Your task to perform on an android device: Empty the shopping cart on ebay.com. Search for "razer blade" on ebay.com, select the first entry, add it to the cart, then select checkout. Image 0: 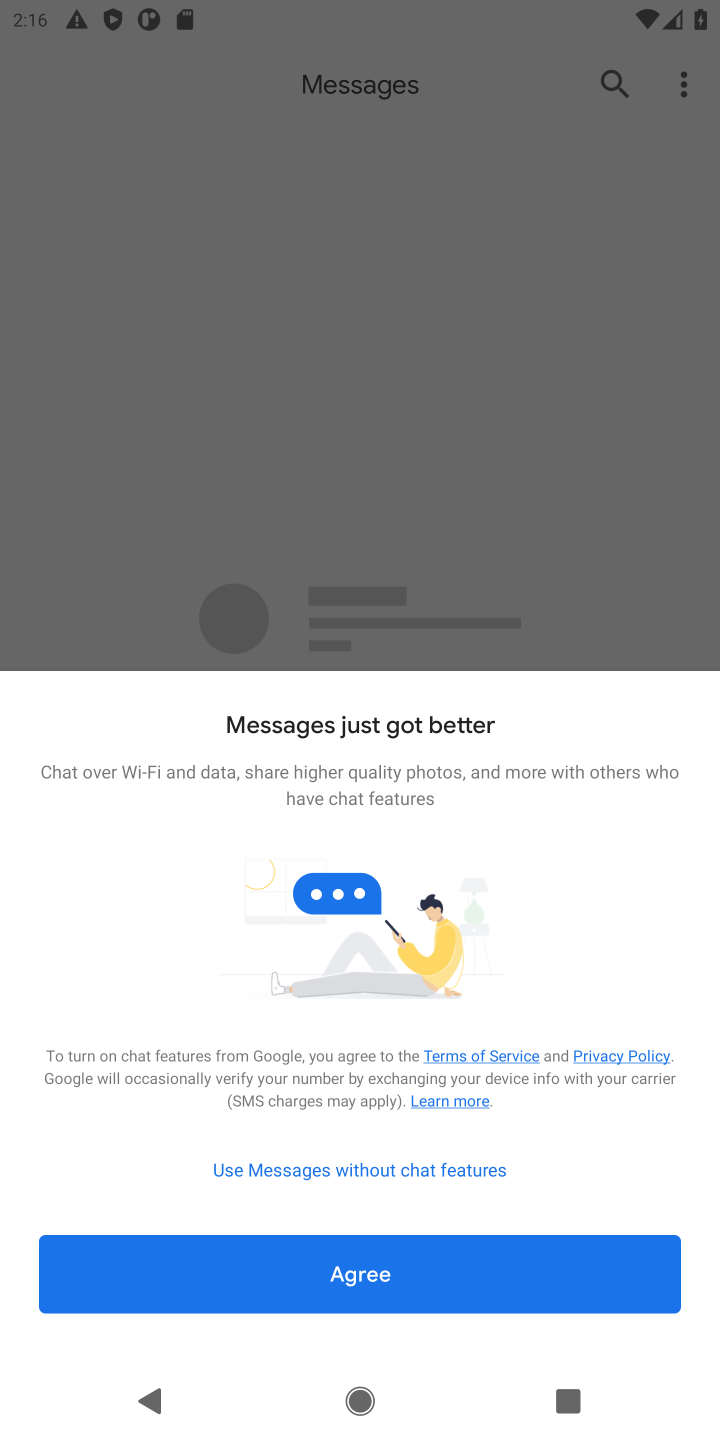
Step 0: press home button
Your task to perform on an android device: Empty the shopping cart on ebay.com. Search for "razer blade" on ebay.com, select the first entry, add it to the cart, then select checkout. Image 1: 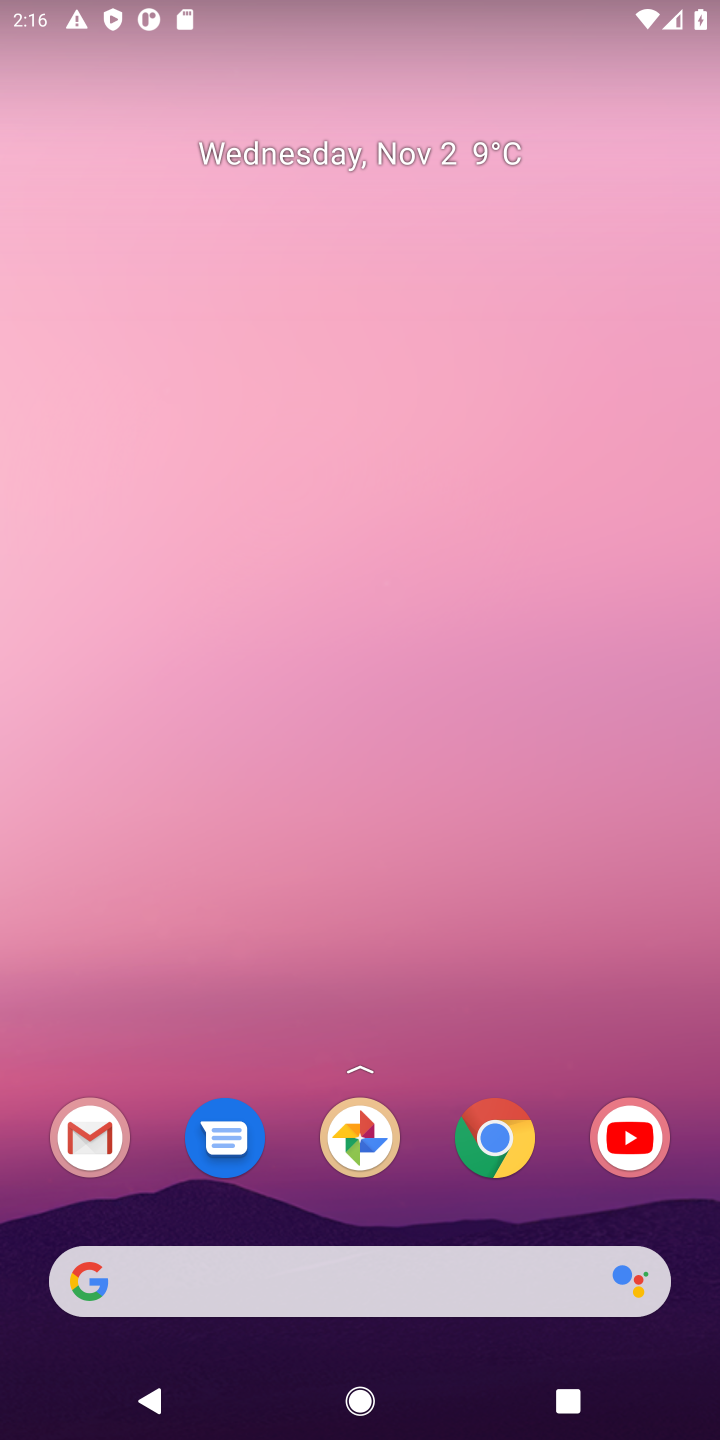
Step 1: click (474, 1106)
Your task to perform on an android device: Empty the shopping cart on ebay.com. Search for "razer blade" on ebay.com, select the first entry, add it to the cart, then select checkout. Image 2: 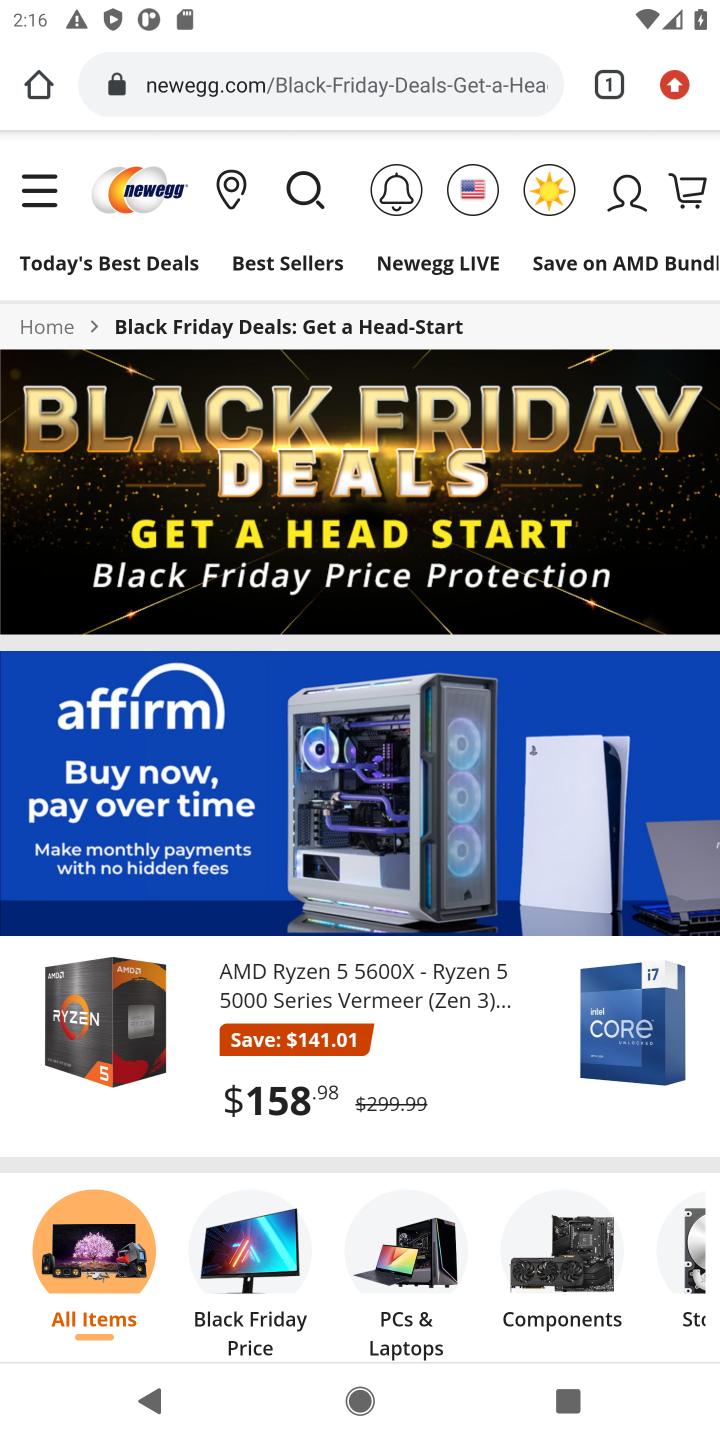
Step 2: click (239, 82)
Your task to perform on an android device: Empty the shopping cart on ebay.com. Search for "razer blade" on ebay.com, select the first entry, add it to the cart, then select checkout. Image 3: 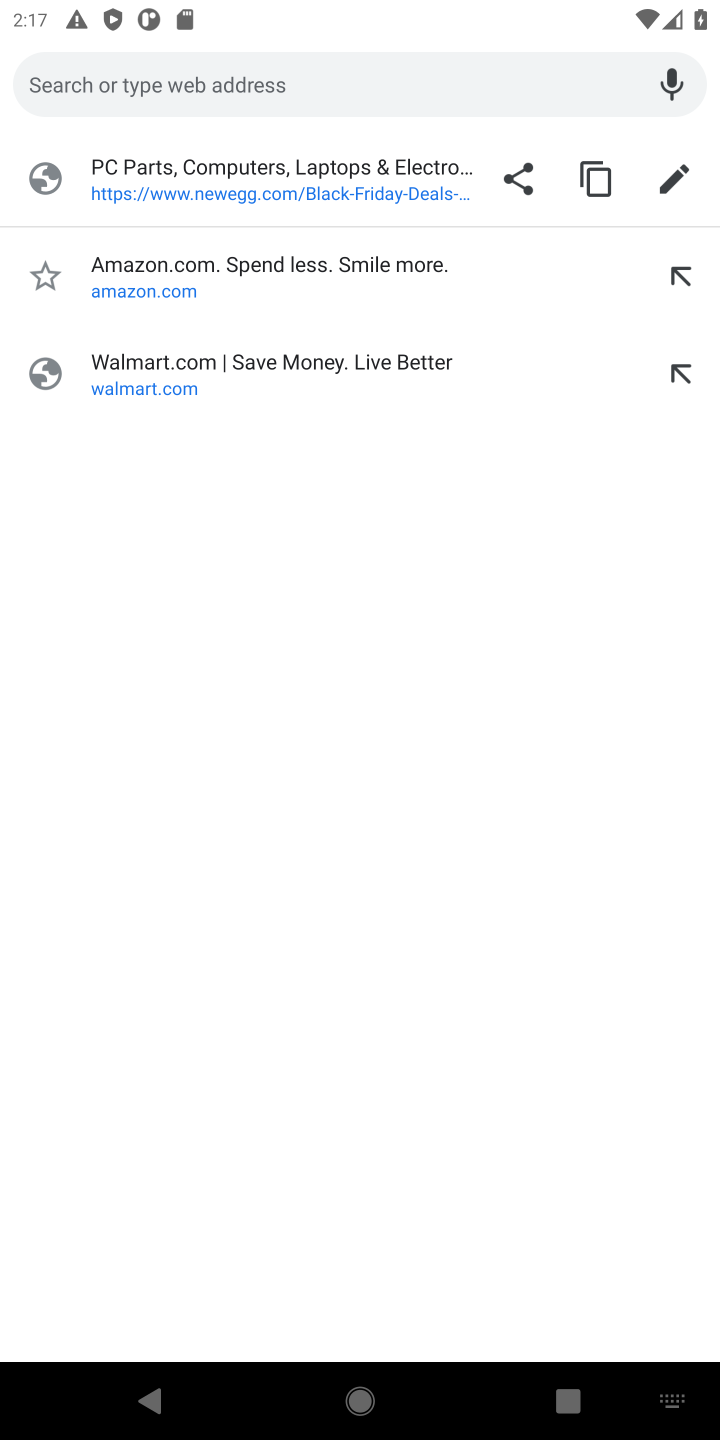
Step 3: type "ebay"
Your task to perform on an android device: Empty the shopping cart on ebay.com. Search for "razer blade" on ebay.com, select the first entry, add it to the cart, then select checkout. Image 4: 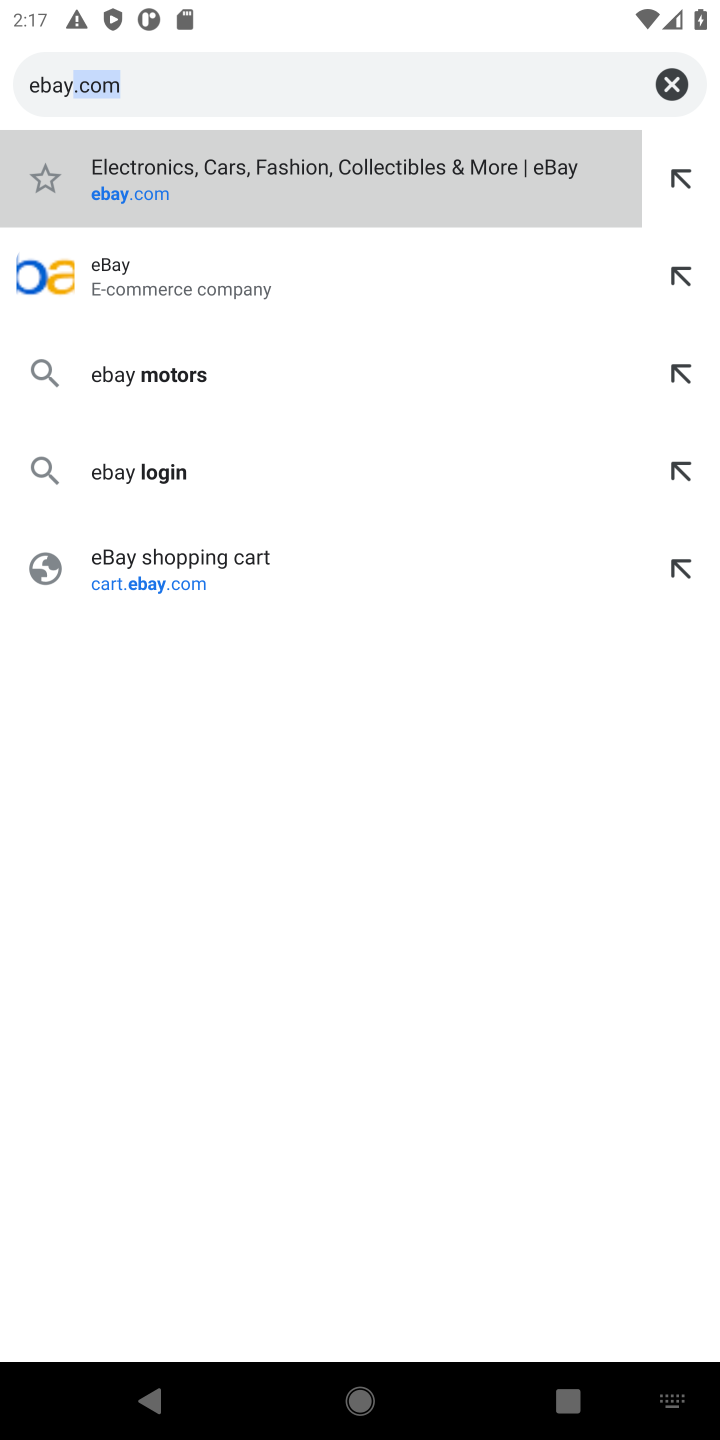
Step 4: click (154, 302)
Your task to perform on an android device: Empty the shopping cart on ebay.com. Search for "razer blade" on ebay.com, select the first entry, add it to the cart, then select checkout. Image 5: 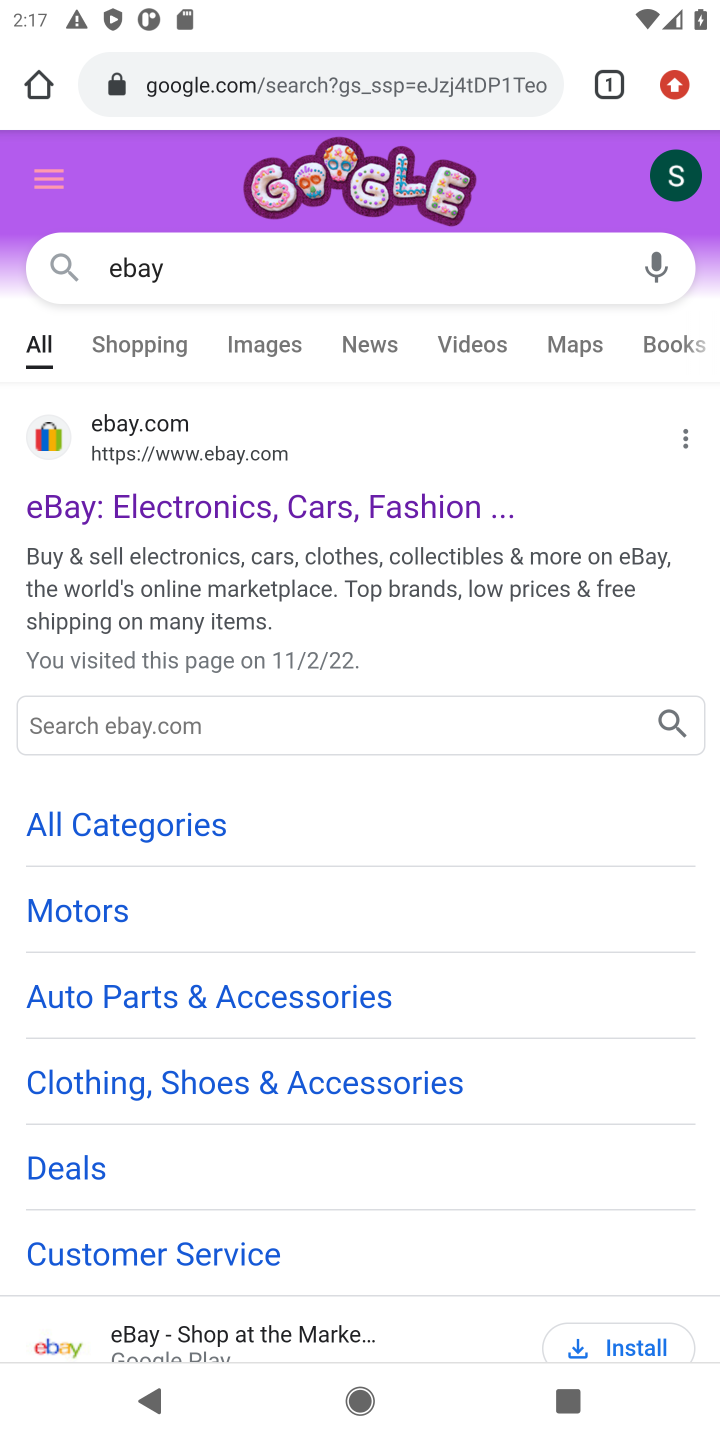
Step 5: click (173, 484)
Your task to perform on an android device: Empty the shopping cart on ebay.com. Search for "razer blade" on ebay.com, select the first entry, add it to the cart, then select checkout. Image 6: 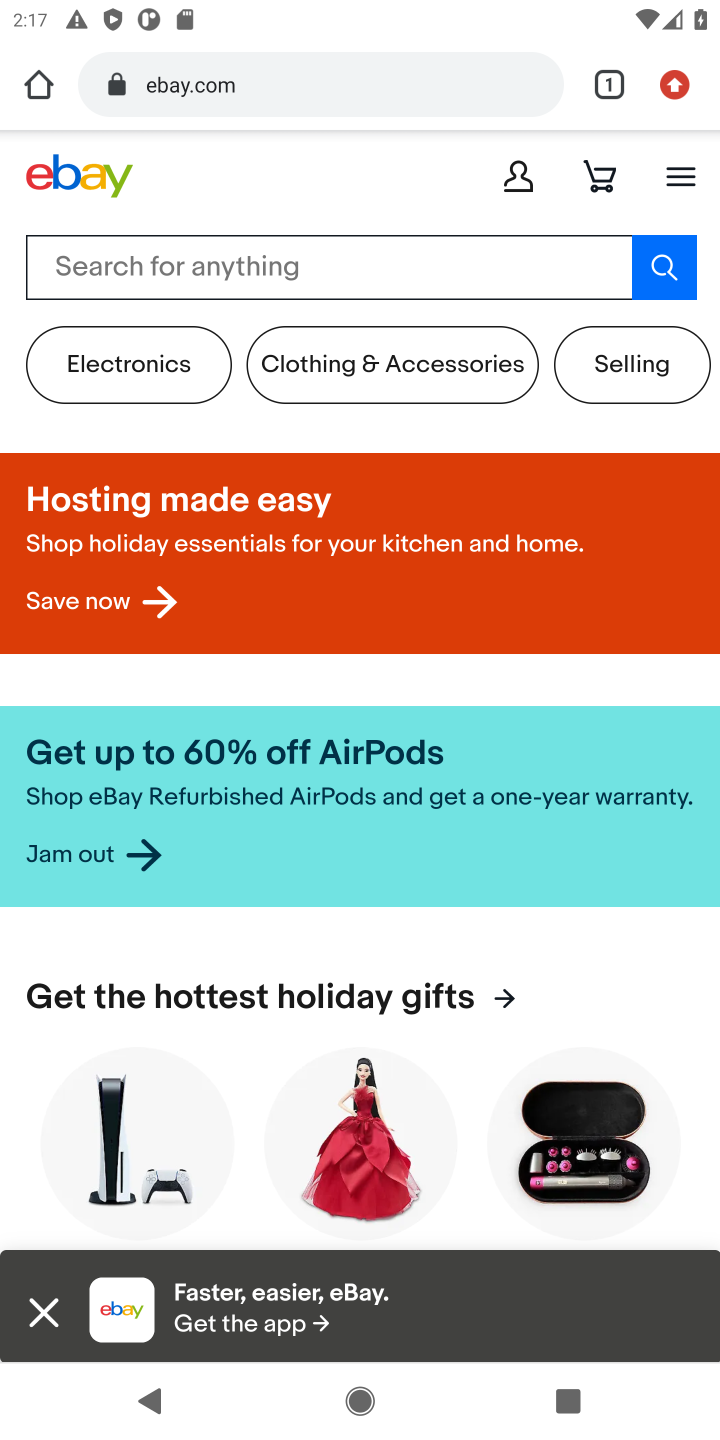
Step 6: click (599, 180)
Your task to perform on an android device: Empty the shopping cart on ebay.com. Search for "razer blade" on ebay.com, select the first entry, add it to the cart, then select checkout. Image 7: 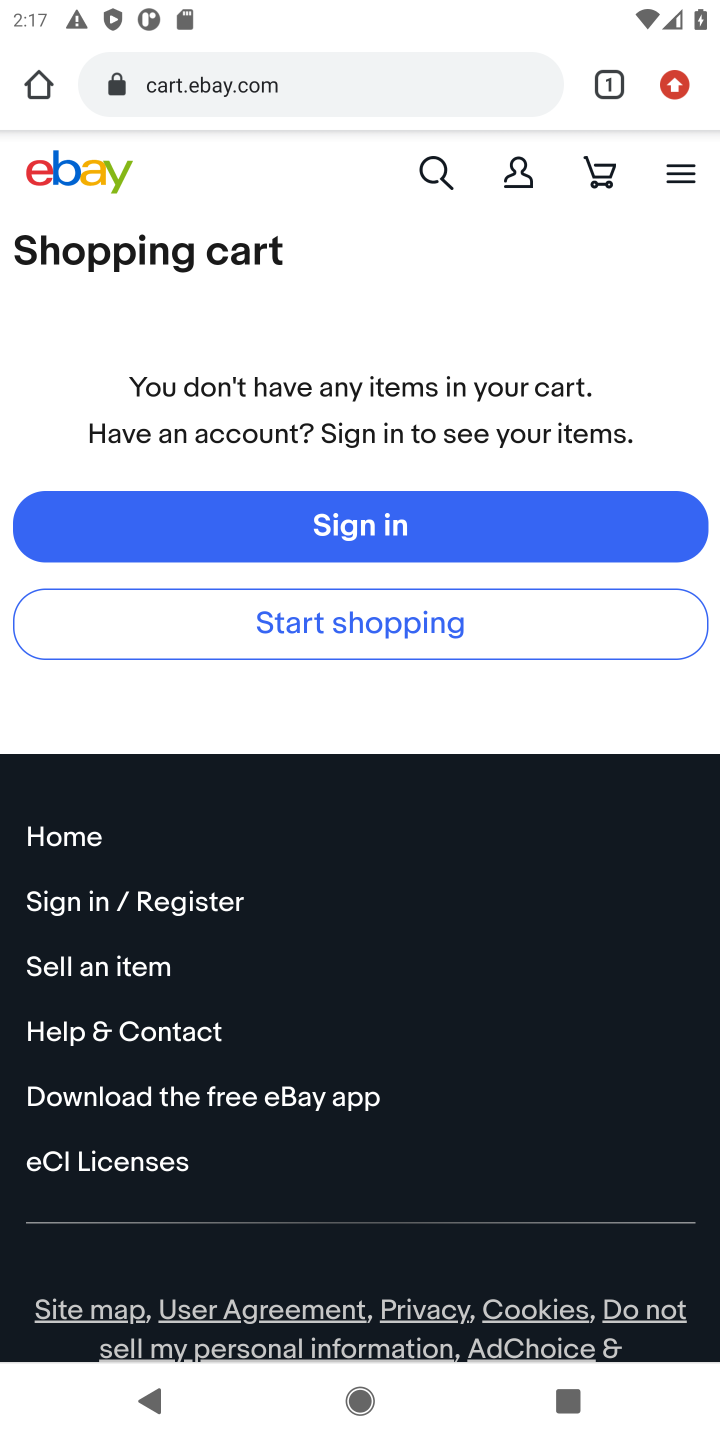
Step 7: click (450, 166)
Your task to perform on an android device: Empty the shopping cart on ebay.com. Search for "razer blade" on ebay.com, select the first entry, add it to the cart, then select checkout. Image 8: 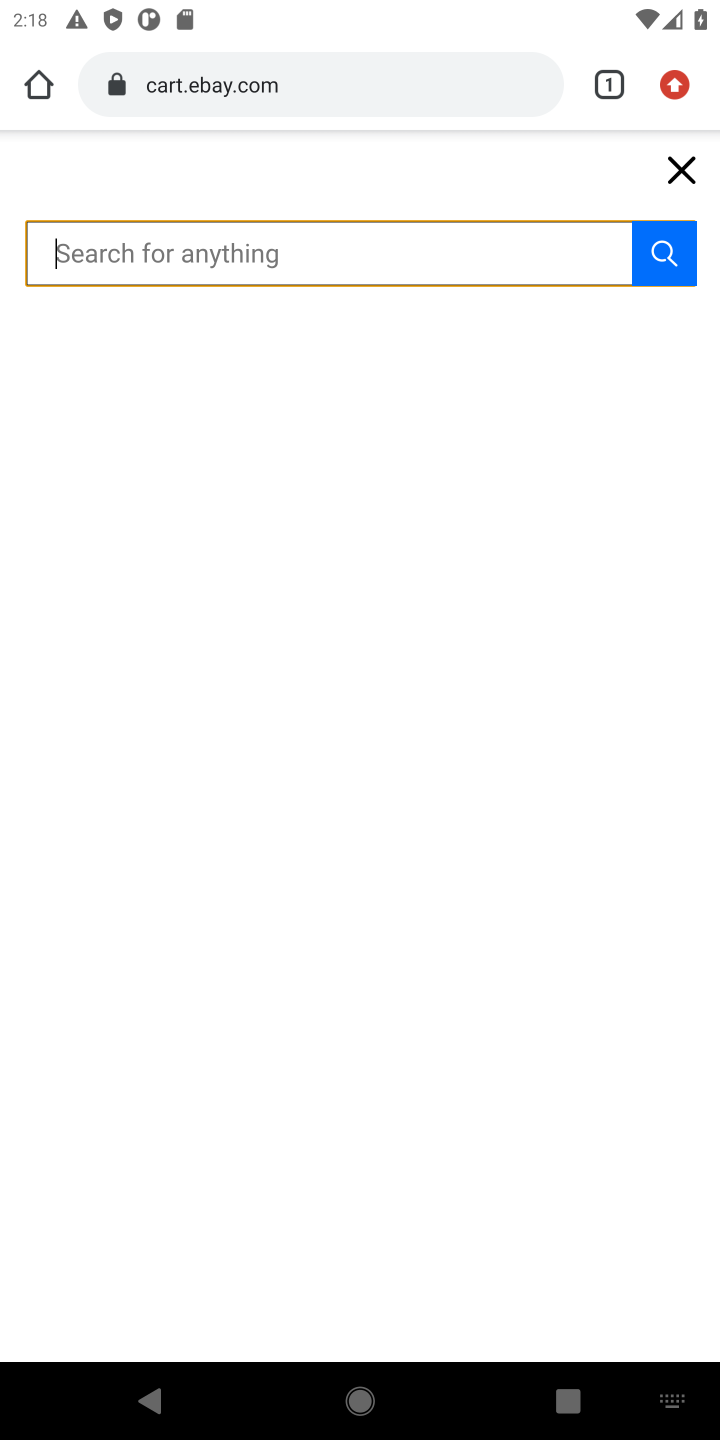
Step 8: type "azer blade"
Your task to perform on an android device: Empty the shopping cart on ebay.com. Search for "razer blade" on ebay.com, select the first entry, add it to the cart, then select checkout. Image 9: 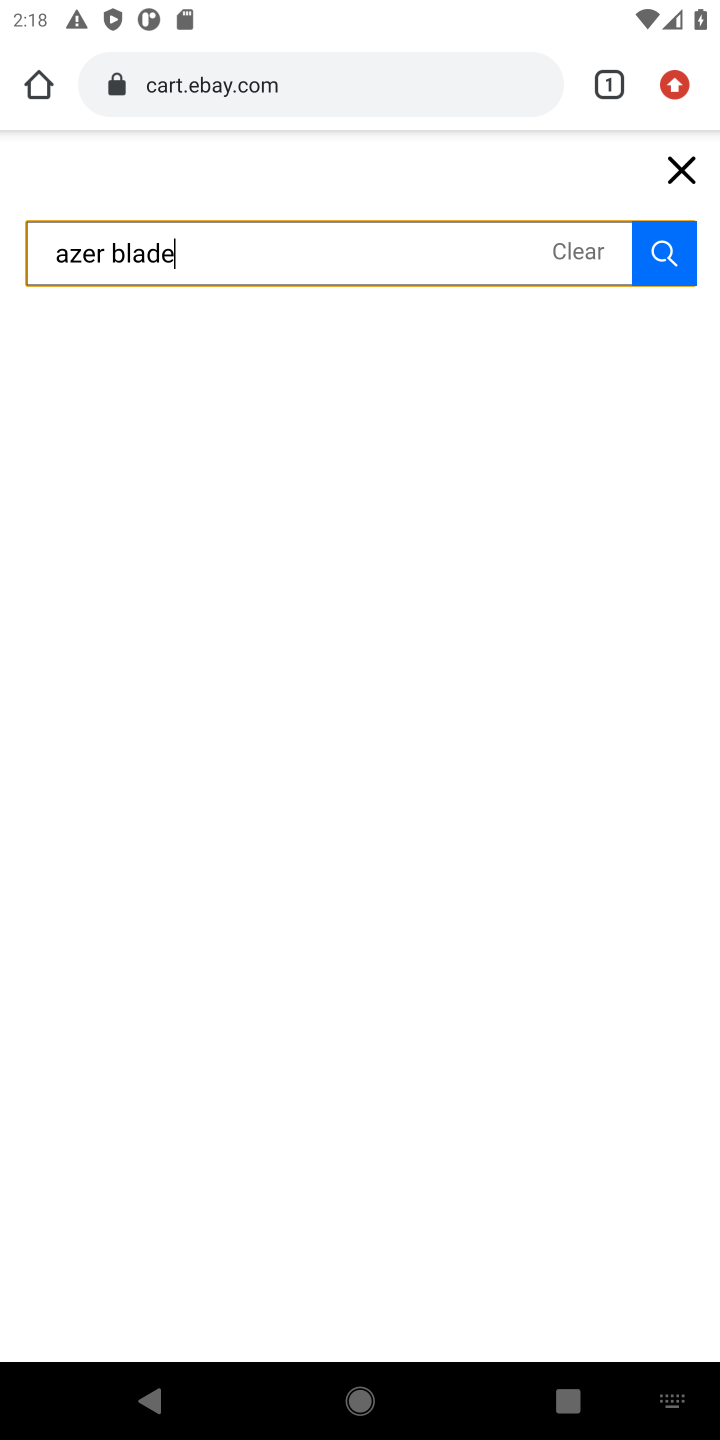
Step 9: click (646, 248)
Your task to perform on an android device: Empty the shopping cart on ebay.com. Search for "razer blade" on ebay.com, select the first entry, add it to the cart, then select checkout. Image 10: 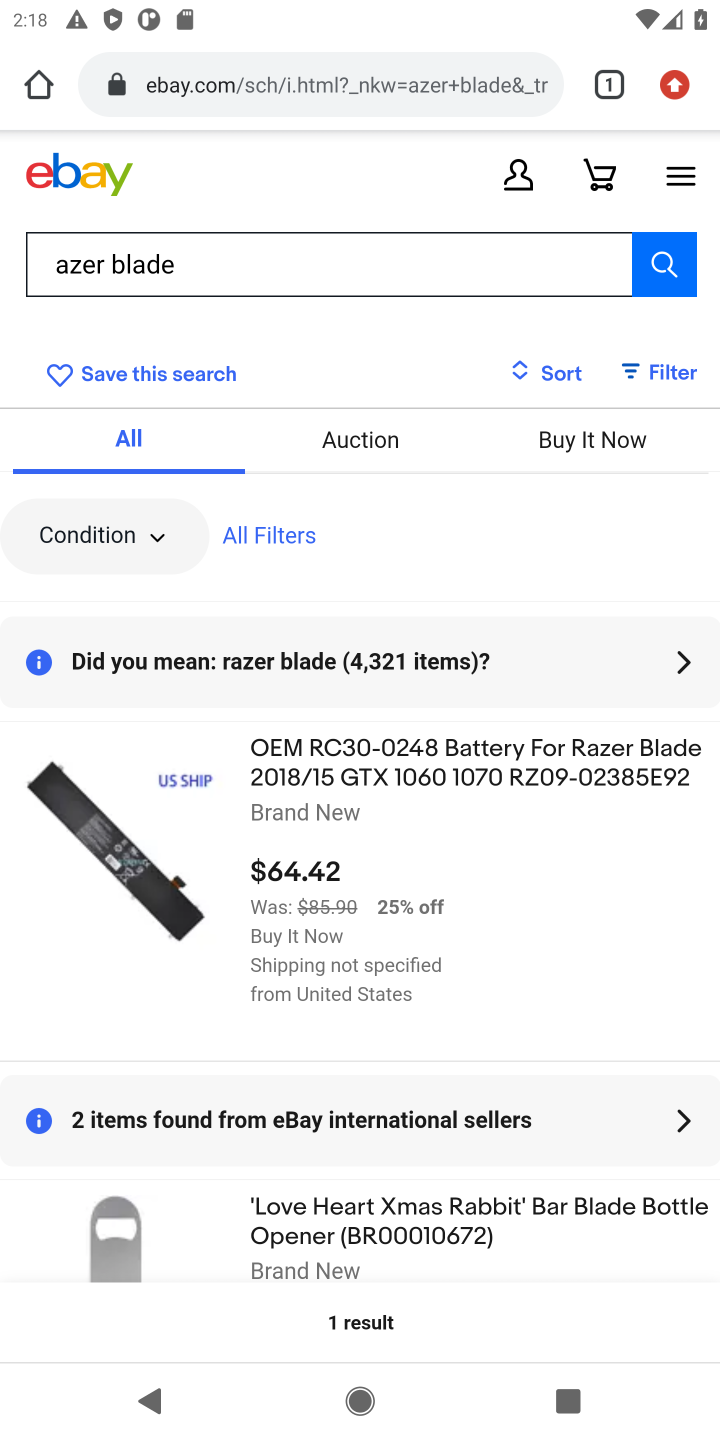
Step 10: click (646, 248)
Your task to perform on an android device: Empty the shopping cart on ebay.com. Search for "razer blade" on ebay.com, select the first entry, add it to the cart, then select checkout. Image 11: 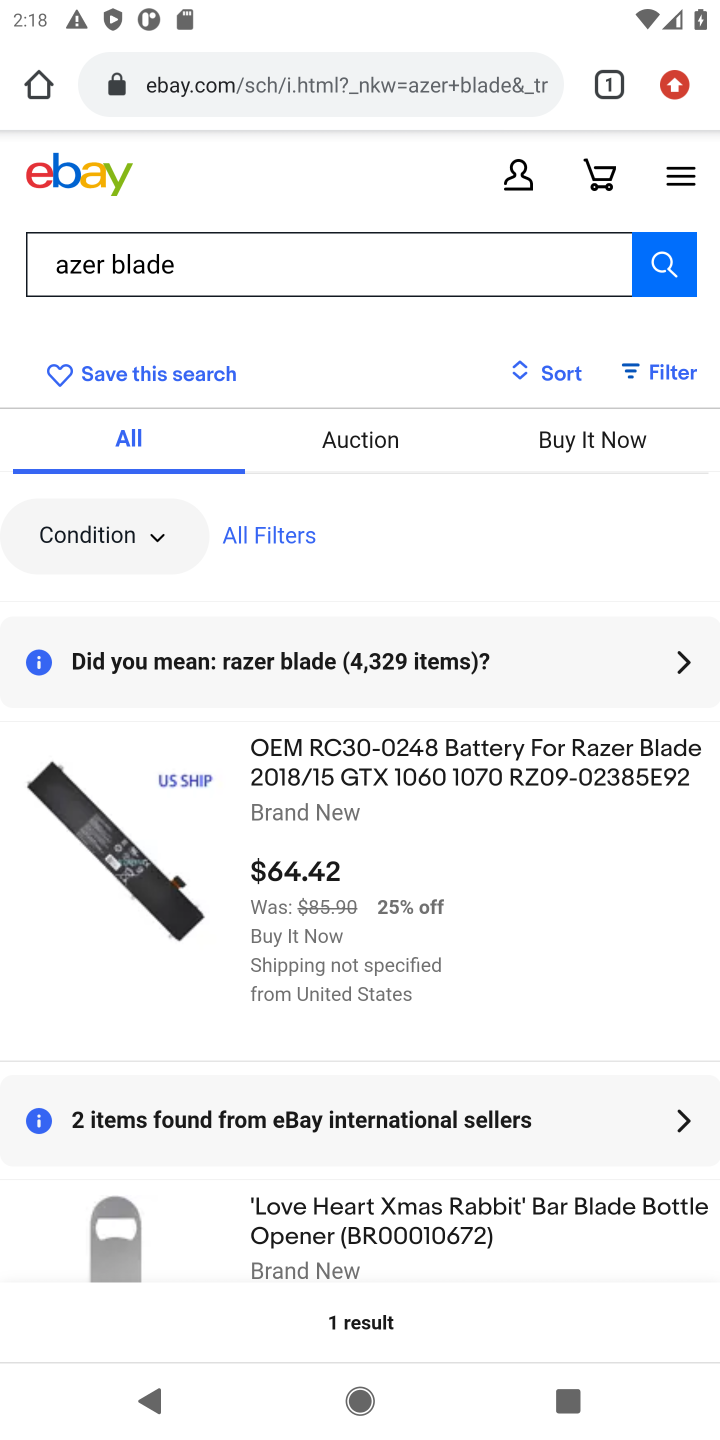
Step 11: click (314, 725)
Your task to perform on an android device: Empty the shopping cart on ebay.com. Search for "razer blade" on ebay.com, select the first entry, add it to the cart, then select checkout. Image 12: 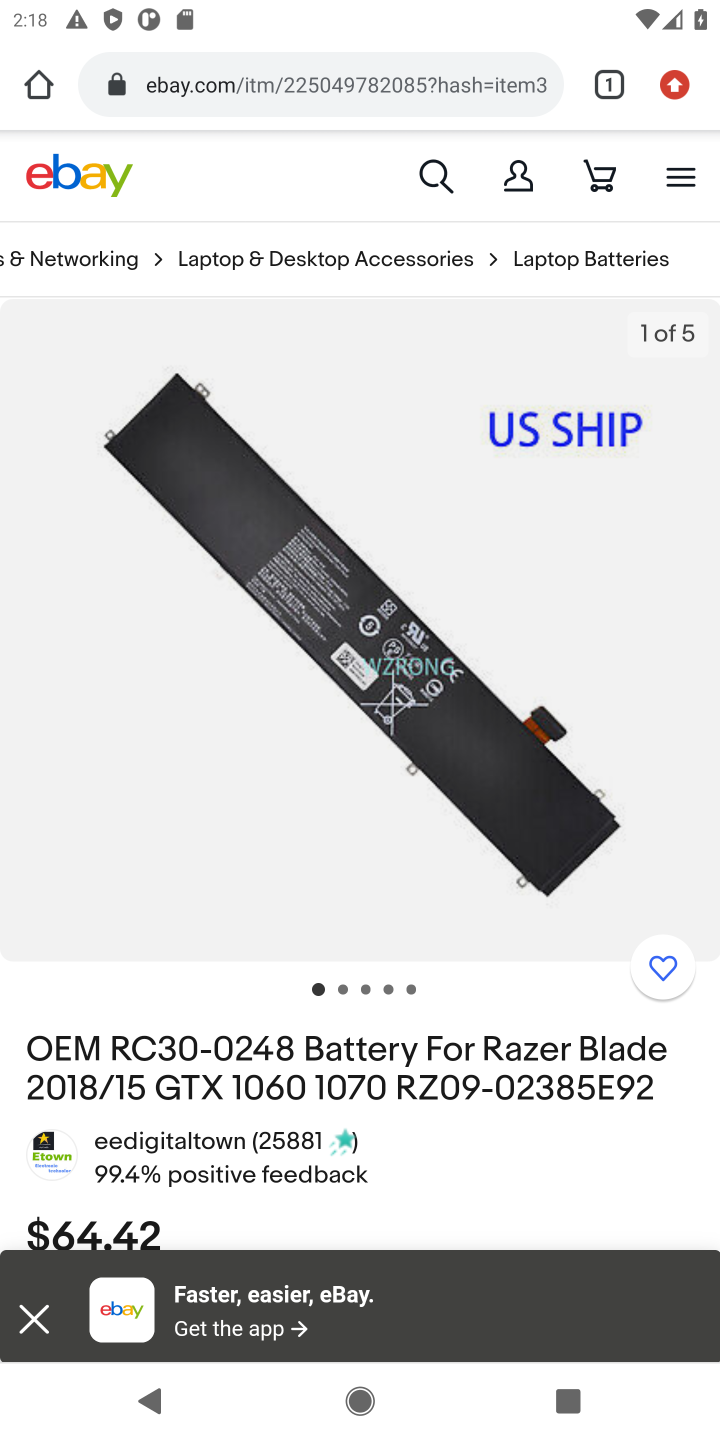
Step 12: drag from (486, 828) to (575, 491)
Your task to perform on an android device: Empty the shopping cart on ebay.com. Search for "razer blade" on ebay.com, select the first entry, add it to the cart, then select checkout. Image 13: 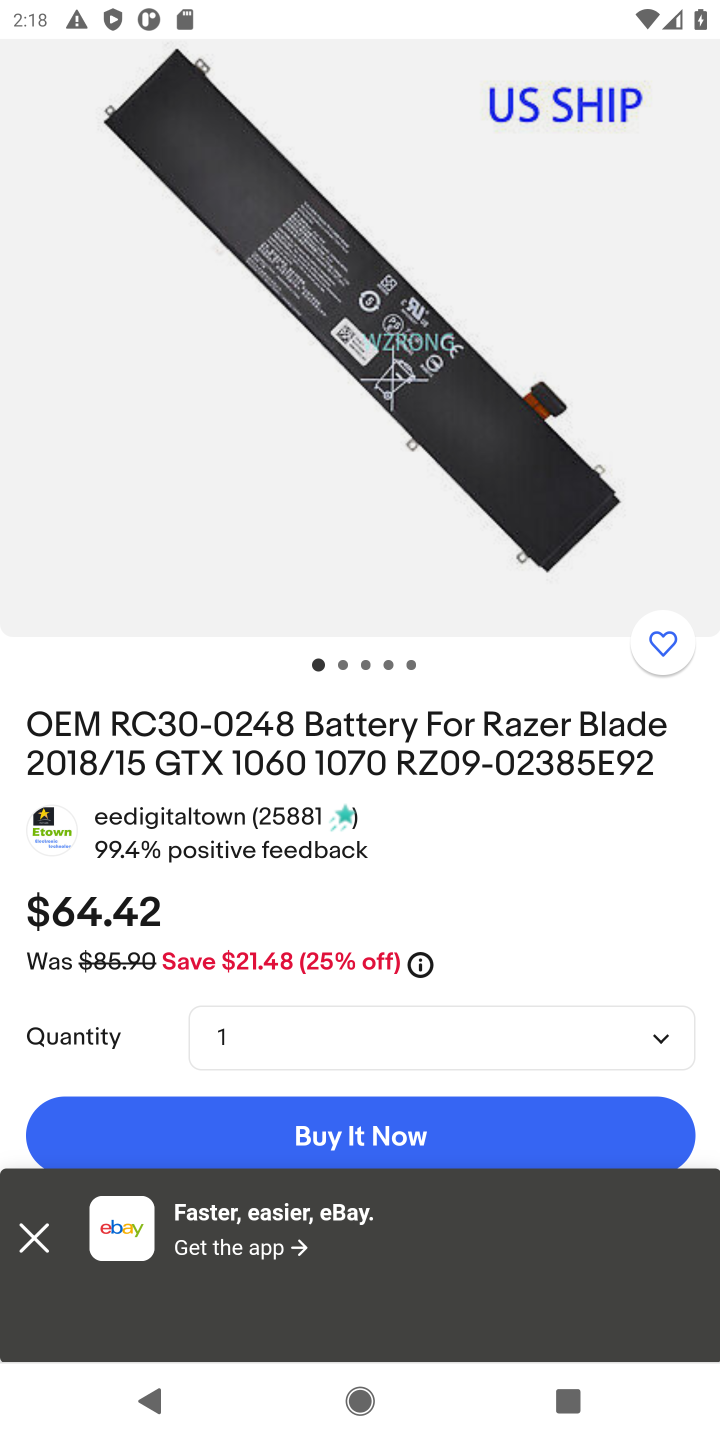
Step 13: drag from (470, 1012) to (513, 476)
Your task to perform on an android device: Empty the shopping cart on ebay.com. Search for "razer blade" on ebay.com, select the first entry, add it to the cart, then select checkout. Image 14: 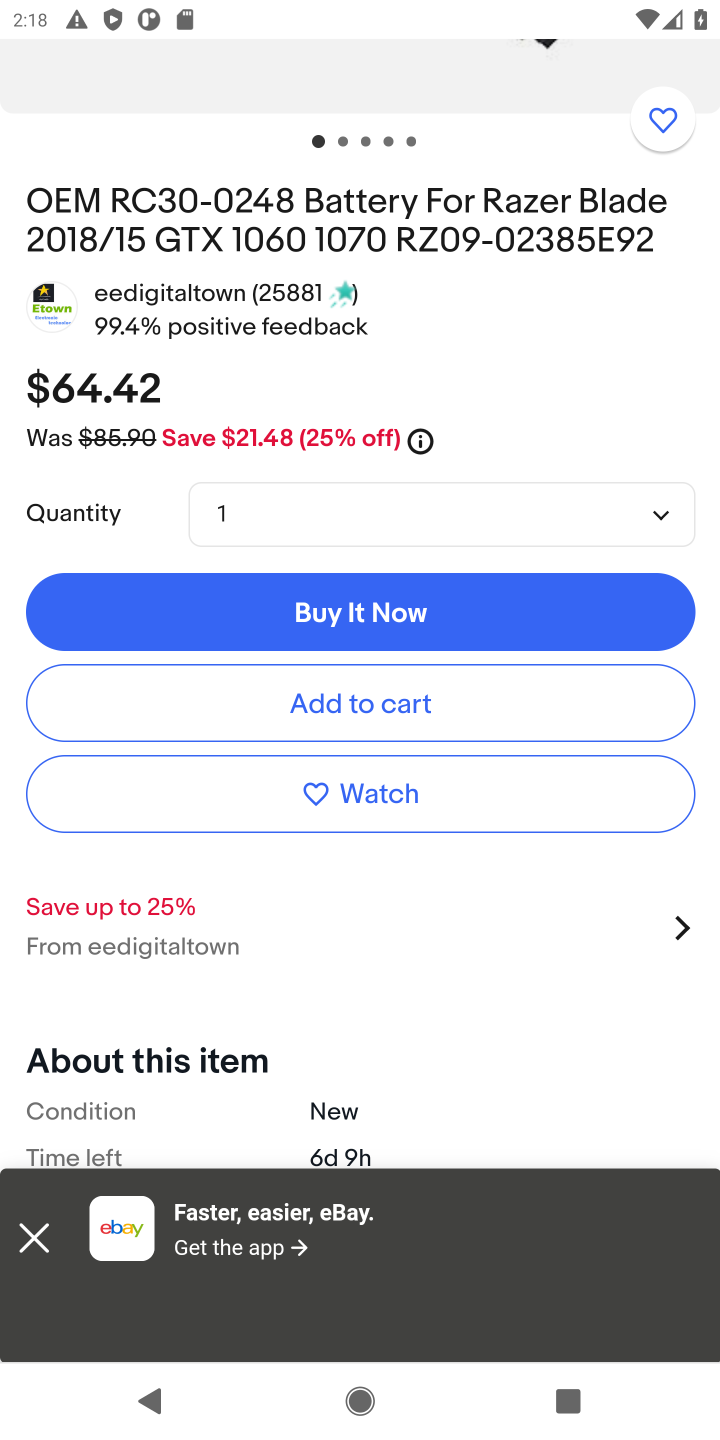
Step 14: click (225, 699)
Your task to perform on an android device: Empty the shopping cart on ebay.com. Search for "razer blade" on ebay.com, select the first entry, add it to the cart, then select checkout. Image 15: 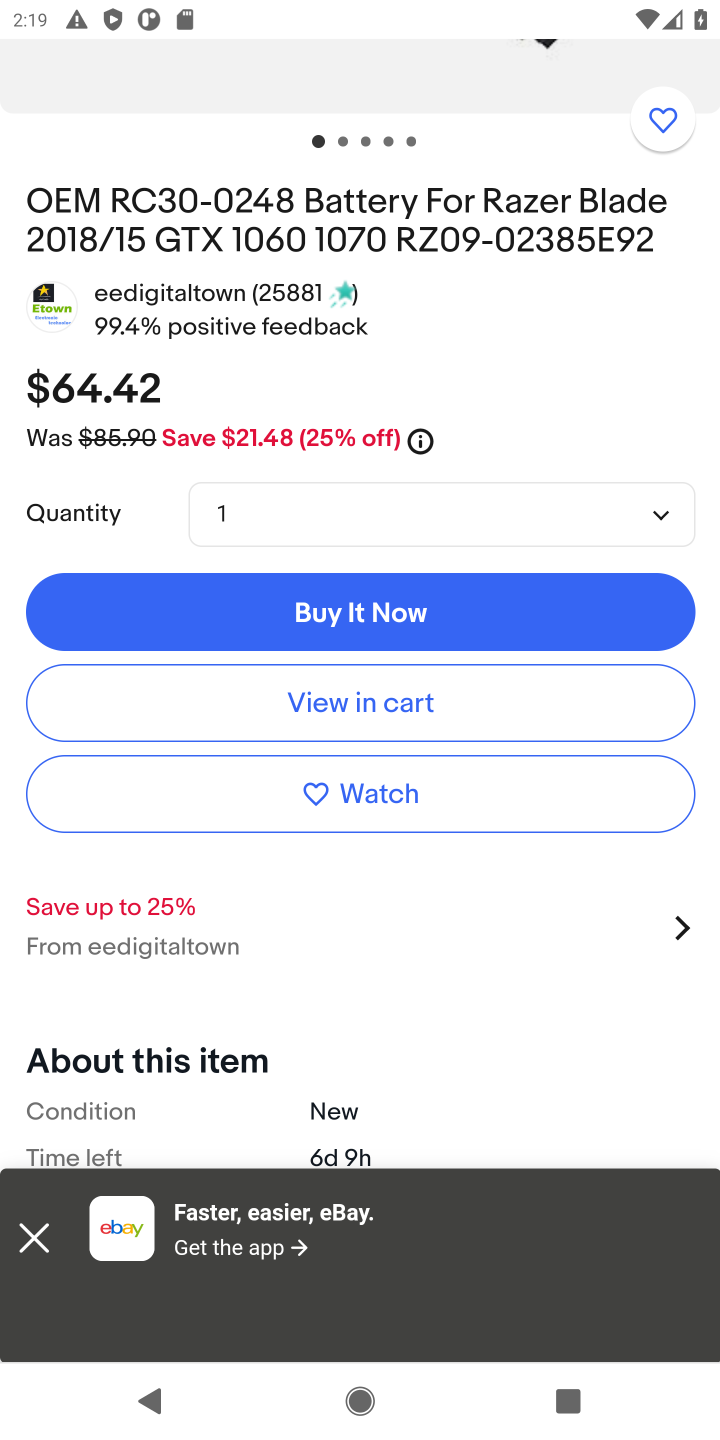
Step 15: click (225, 699)
Your task to perform on an android device: Empty the shopping cart on ebay.com. Search for "razer blade" on ebay.com, select the first entry, add it to the cart, then select checkout. Image 16: 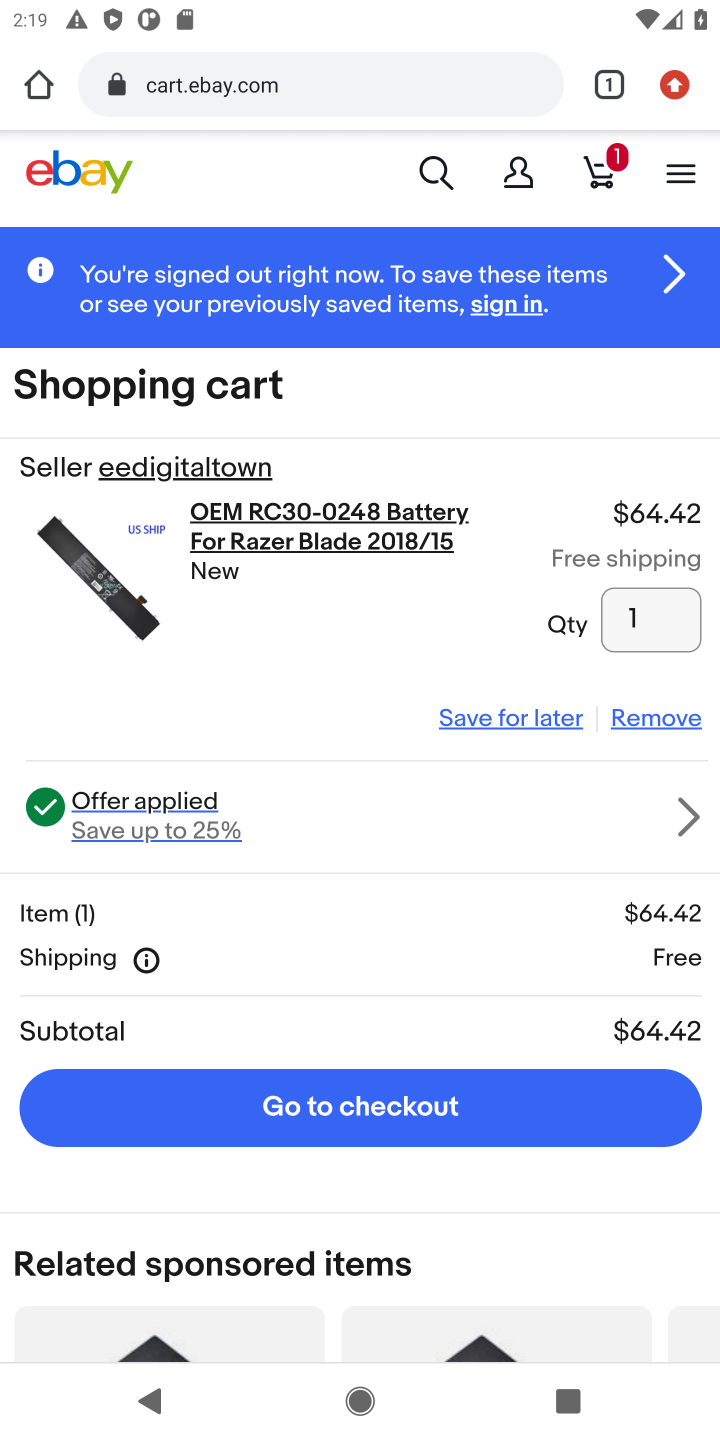
Step 16: click (347, 1095)
Your task to perform on an android device: Empty the shopping cart on ebay.com. Search for "razer blade" on ebay.com, select the first entry, add it to the cart, then select checkout. Image 17: 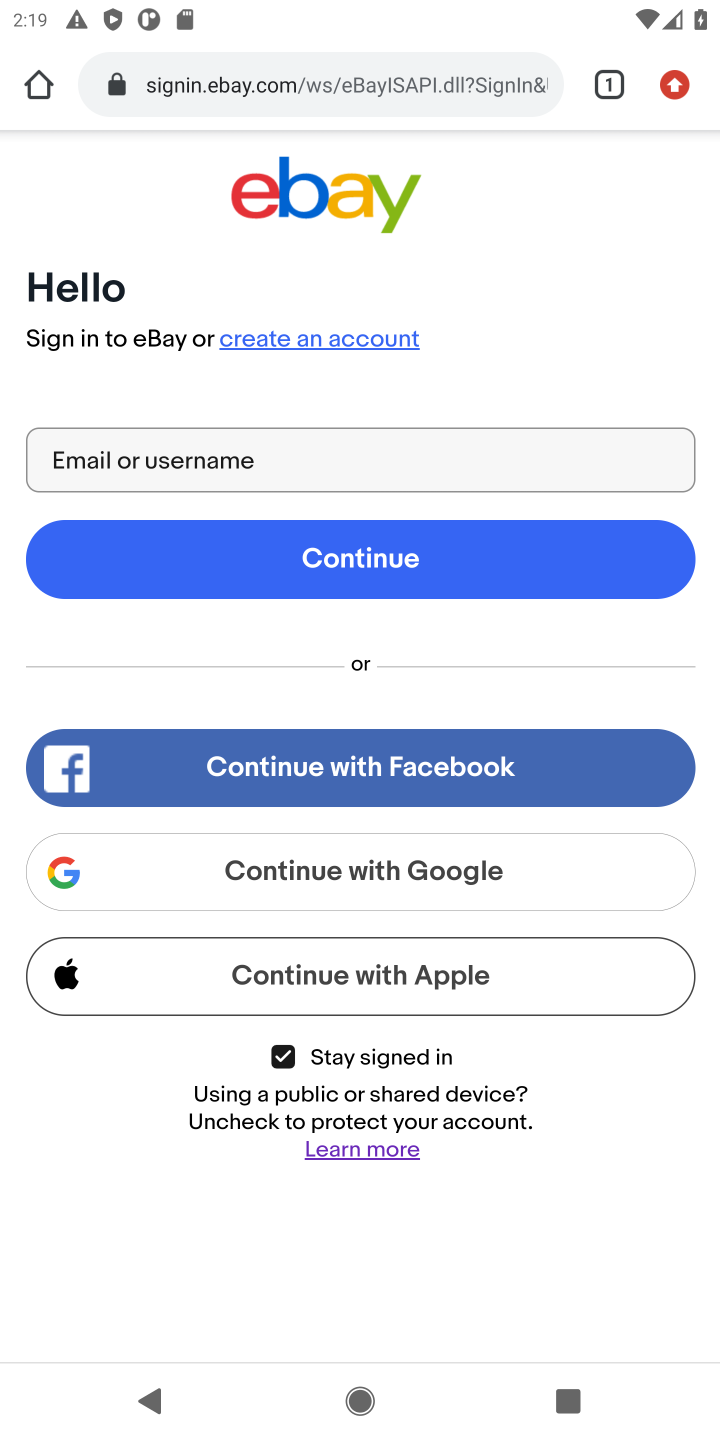
Step 17: task complete